Your task to perform on an android device: Open the calendar app, open the side menu, and click the "Day" option Image 0: 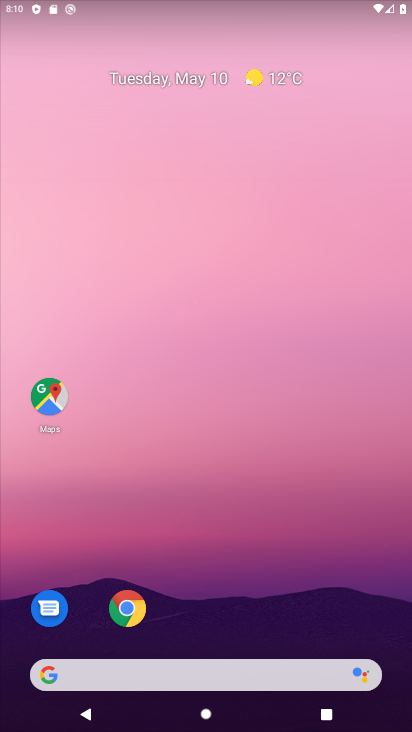
Step 0: drag from (217, 666) to (173, 143)
Your task to perform on an android device: Open the calendar app, open the side menu, and click the "Day" option Image 1: 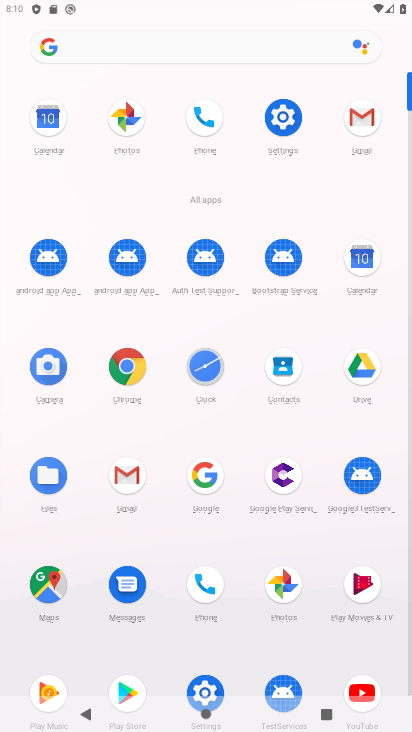
Step 1: click (372, 247)
Your task to perform on an android device: Open the calendar app, open the side menu, and click the "Day" option Image 2: 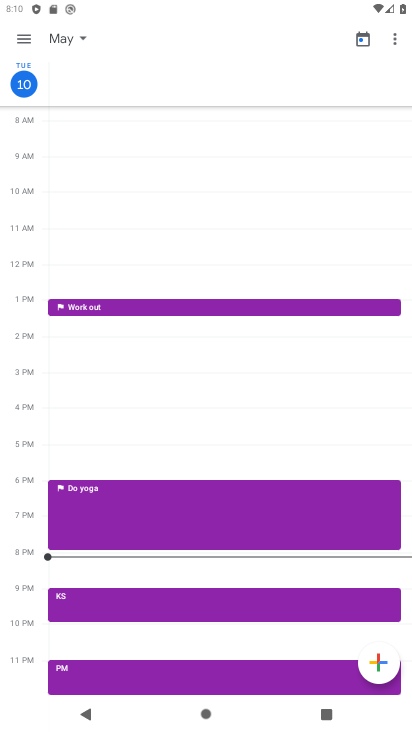
Step 2: click (19, 41)
Your task to perform on an android device: Open the calendar app, open the side menu, and click the "Day" option Image 3: 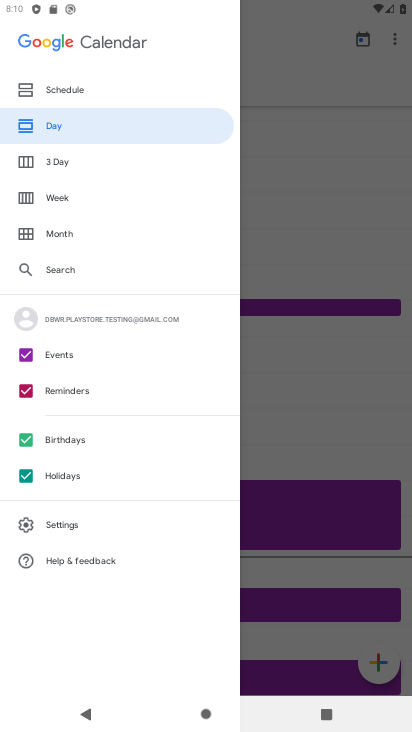
Step 3: click (138, 125)
Your task to perform on an android device: Open the calendar app, open the side menu, and click the "Day" option Image 4: 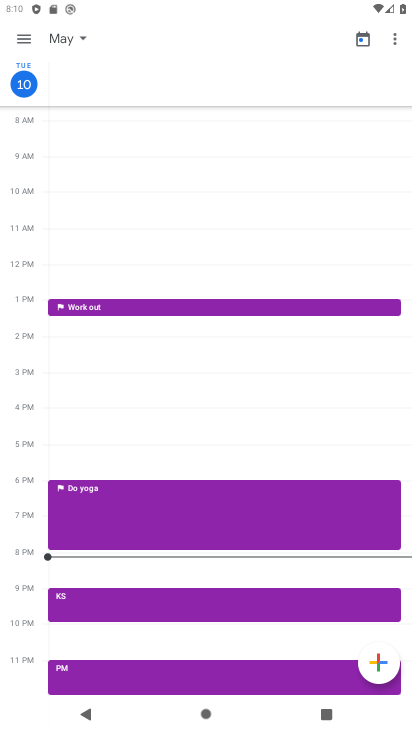
Step 4: task complete